Your task to perform on an android device: Clear the cart on newegg.com. Add usb-c to the cart on newegg.com, then select checkout. Image 0: 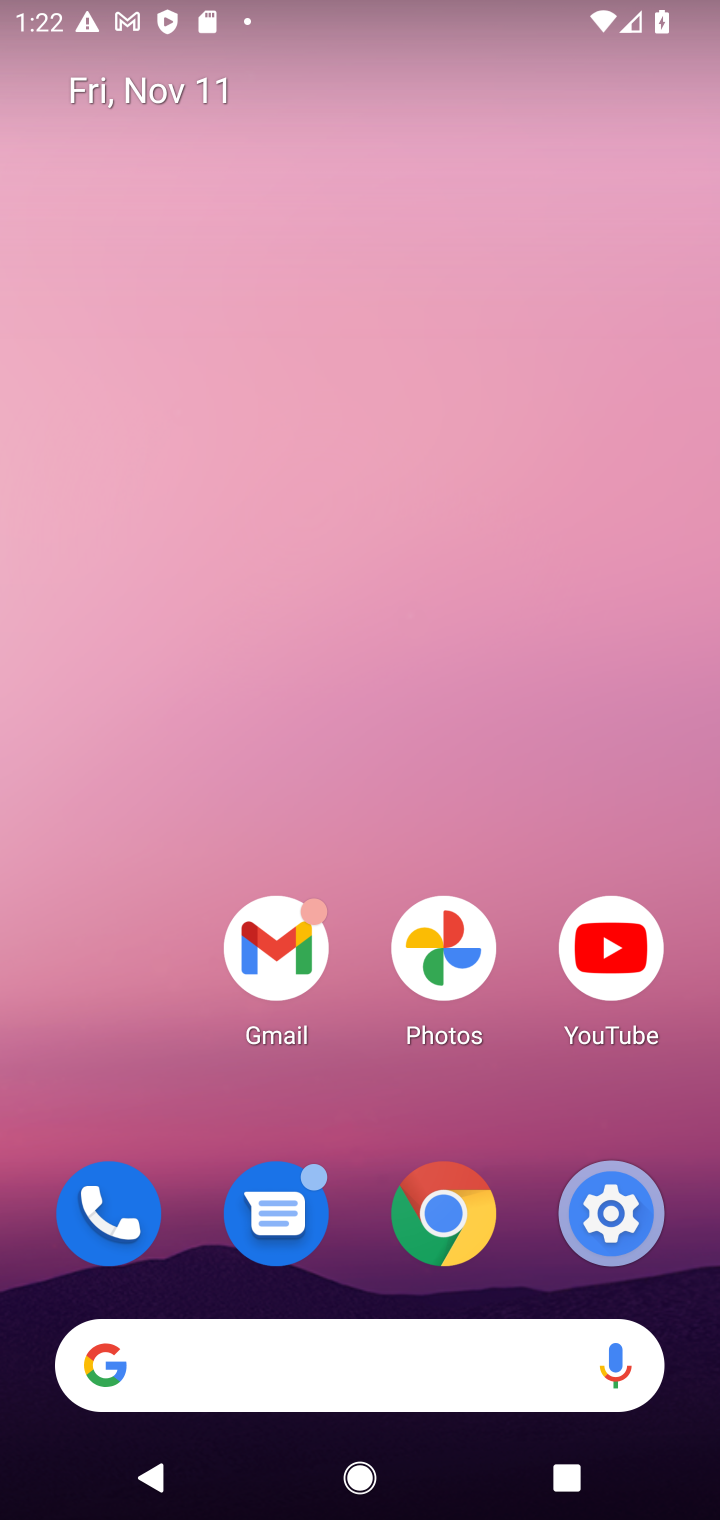
Step 0: click (419, 1221)
Your task to perform on an android device: Clear the cart on newegg.com. Add usb-c to the cart on newegg.com, then select checkout. Image 1: 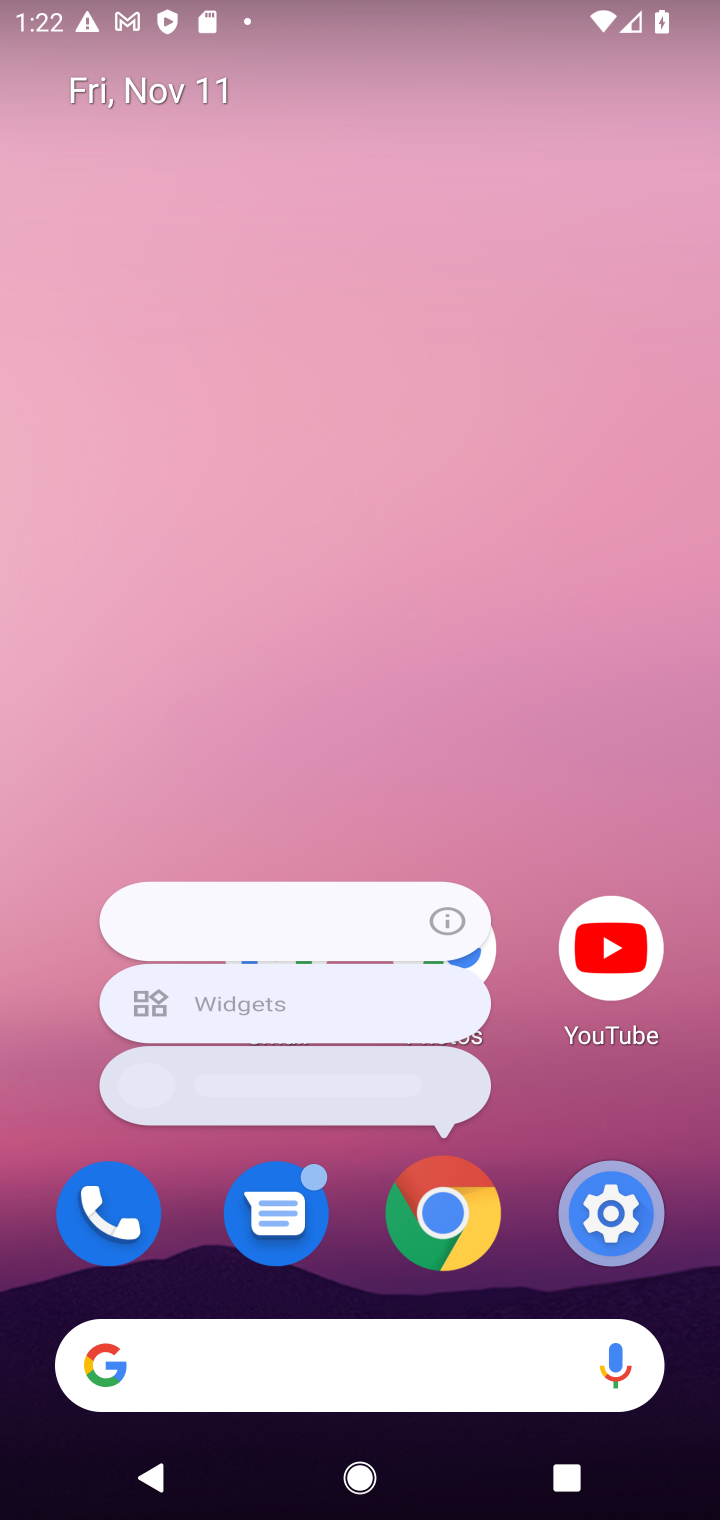
Step 1: click (419, 1217)
Your task to perform on an android device: Clear the cart on newegg.com. Add usb-c to the cart on newegg.com, then select checkout. Image 2: 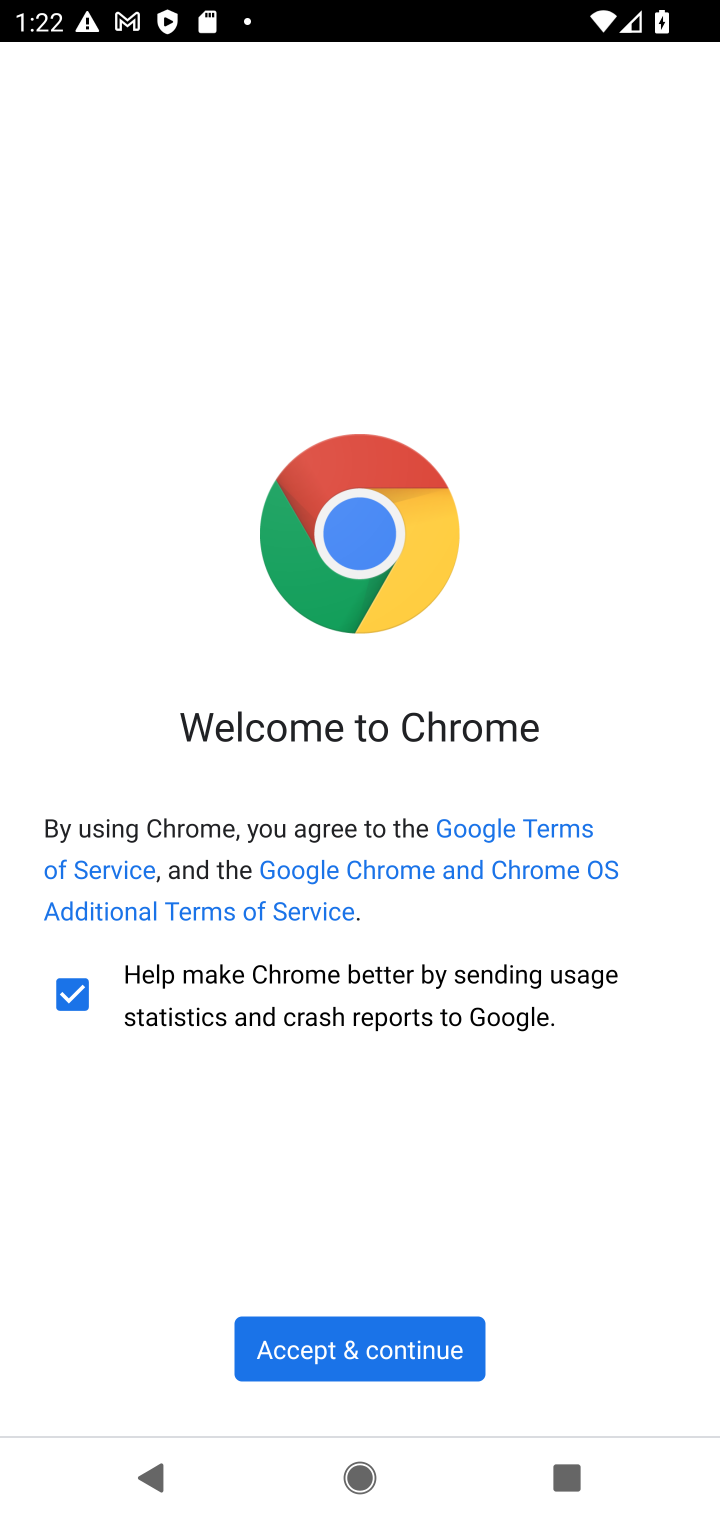
Step 2: click (384, 1335)
Your task to perform on an android device: Clear the cart on newegg.com. Add usb-c to the cart on newegg.com, then select checkout. Image 3: 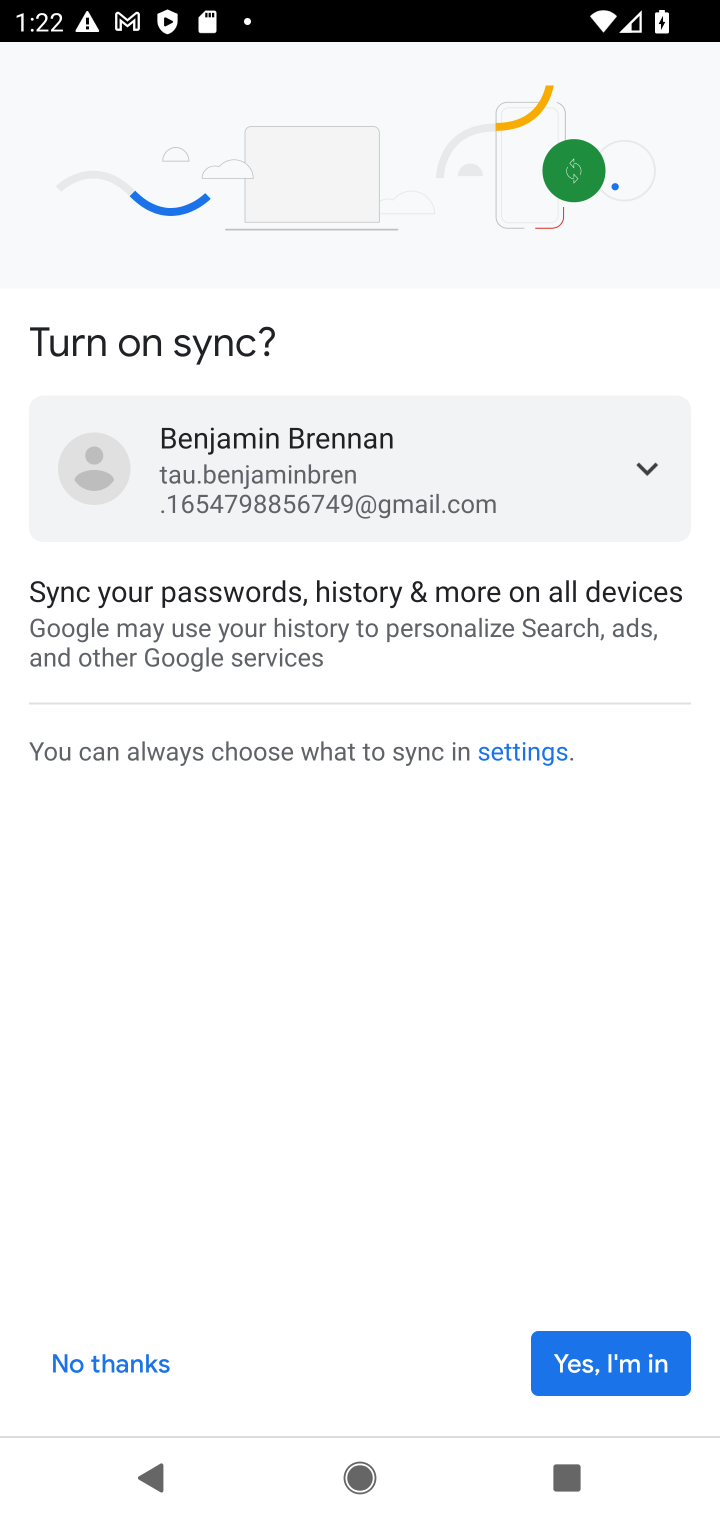
Step 3: click (647, 1377)
Your task to perform on an android device: Clear the cart on newegg.com. Add usb-c to the cart on newegg.com, then select checkout. Image 4: 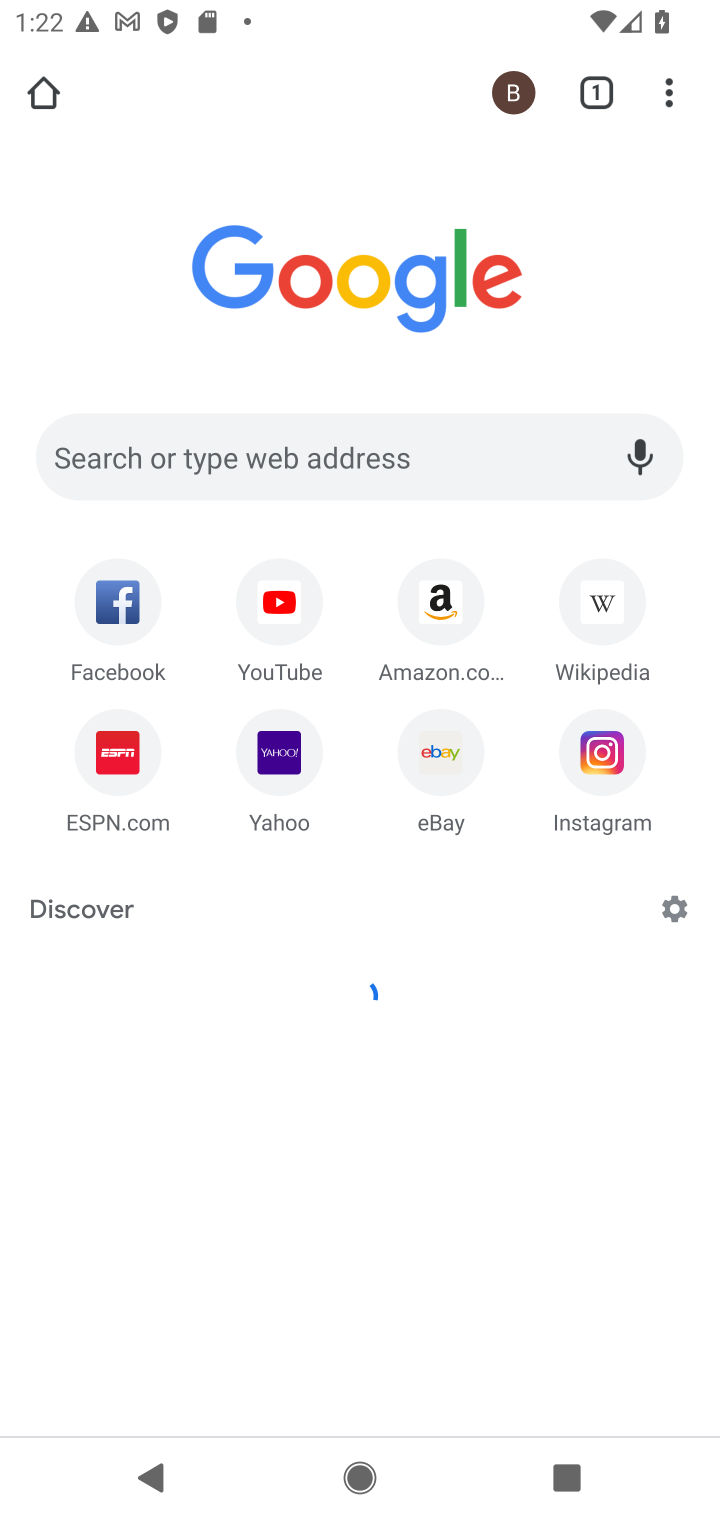
Step 4: click (252, 452)
Your task to perform on an android device: Clear the cart on newegg.com. Add usb-c to the cart on newegg.com, then select checkout. Image 5: 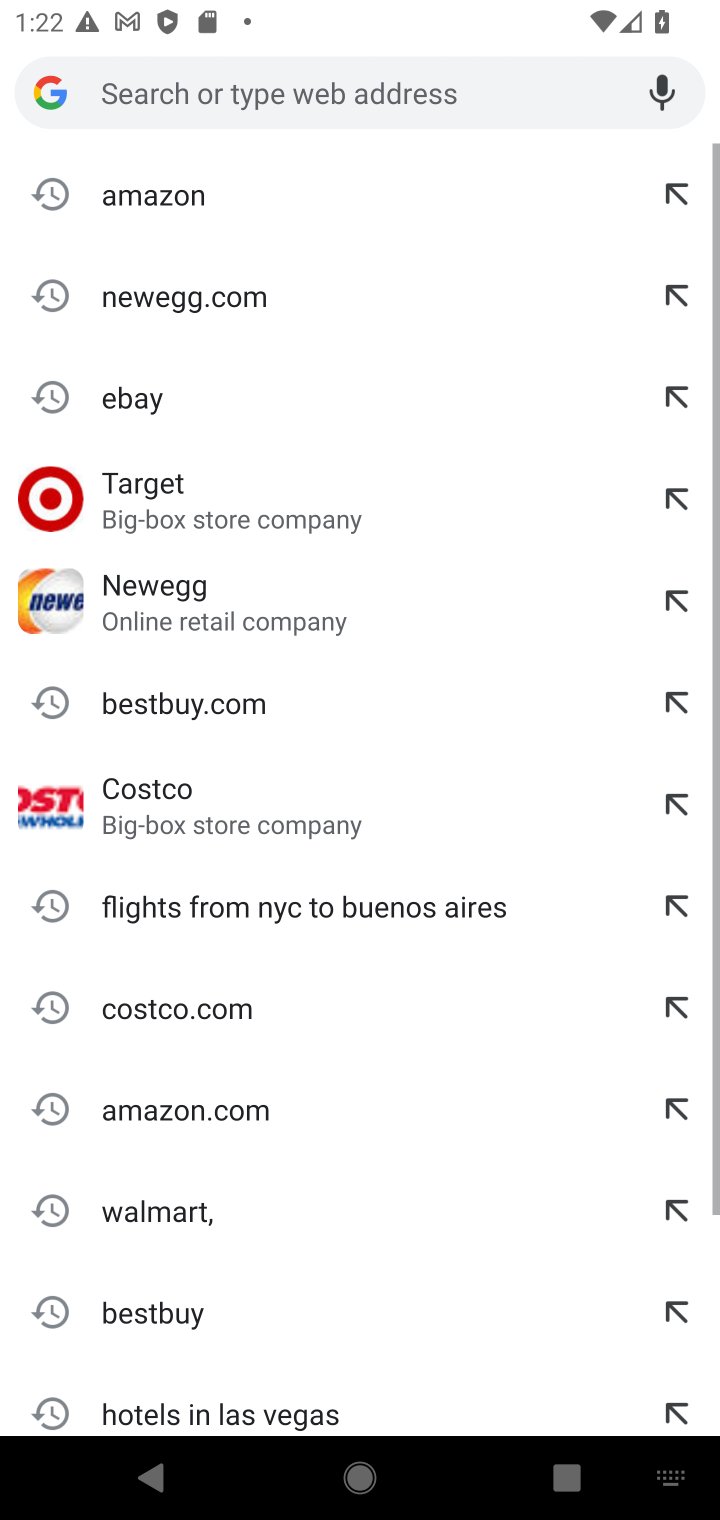
Step 5: click (168, 291)
Your task to perform on an android device: Clear the cart on newegg.com. Add usb-c to the cart on newegg.com, then select checkout. Image 6: 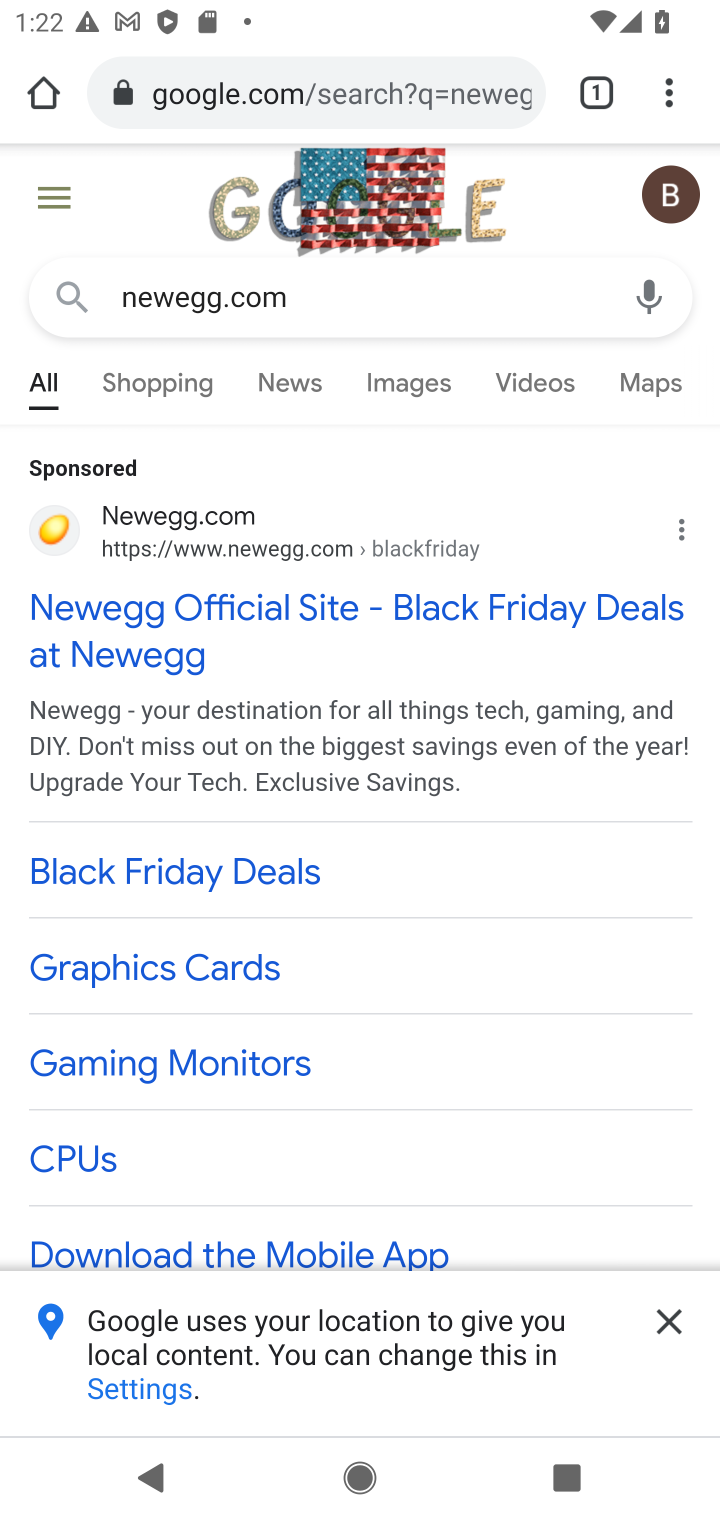
Step 6: drag from (268, 1099) to (343, 294)
Your task to perform on an android device: Clear the cart on newegg.com. Add usb-c to the cart on newegg.com, then select checkout. Image 7: 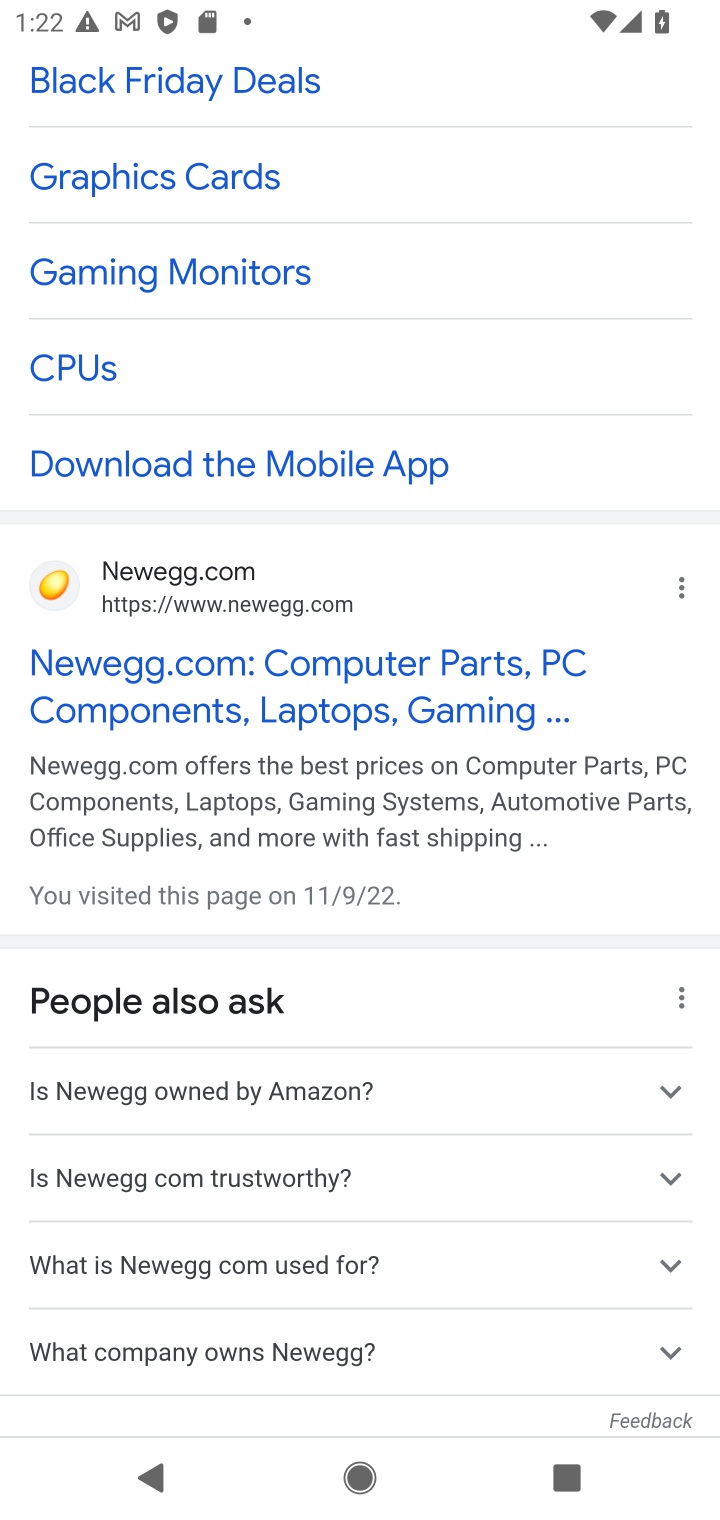
Step 7: drag from (324, 885) to (334, 112)
Your task to perform on an android device: Clear the cart on newegg.com. Add usb-c to the cart on newegg.com, then select checkout. Image 8: 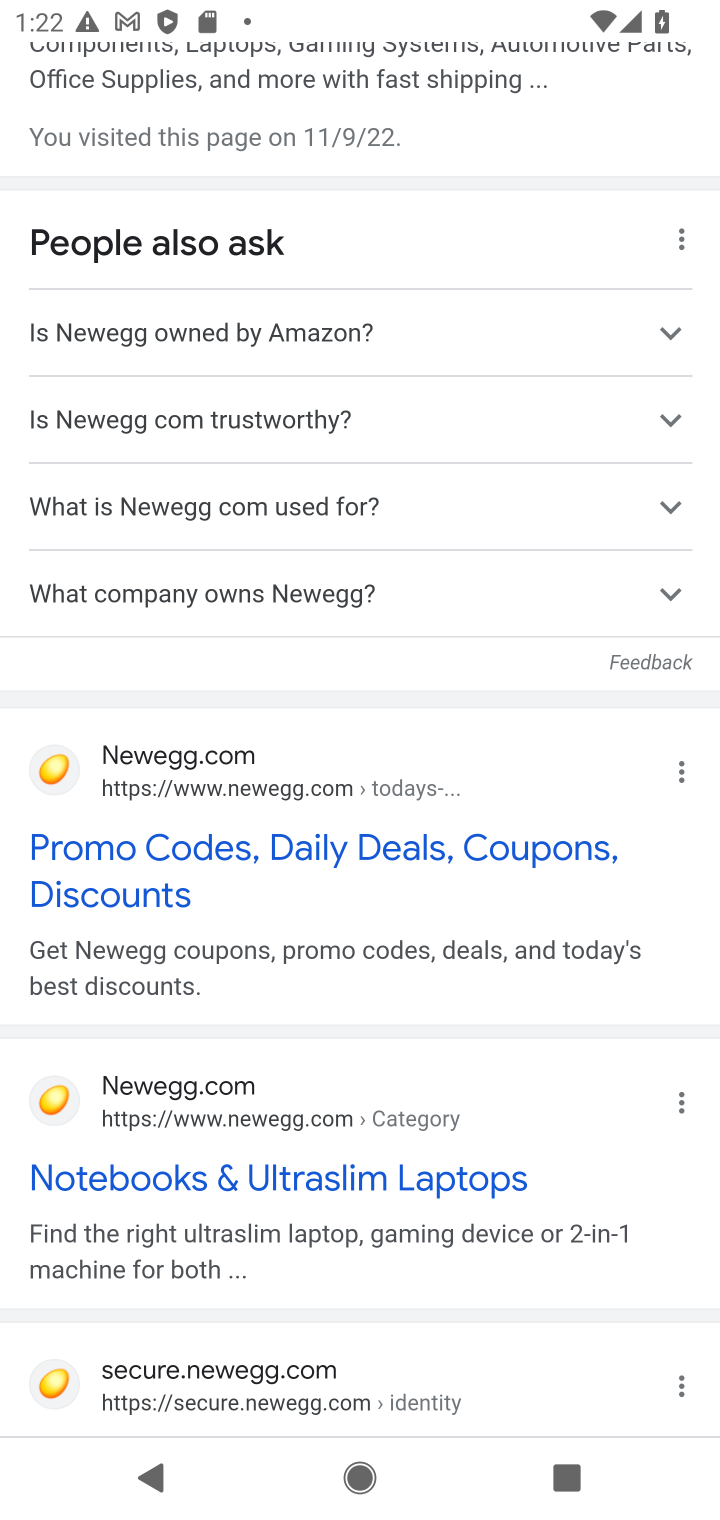
Step 8: drag from (498, 875) to (471, 1227)
Your task to perform on an android device: Clear the cart on newegg.com. Add usb-c to the cart on newegg.com, then select checkout. Image 9: 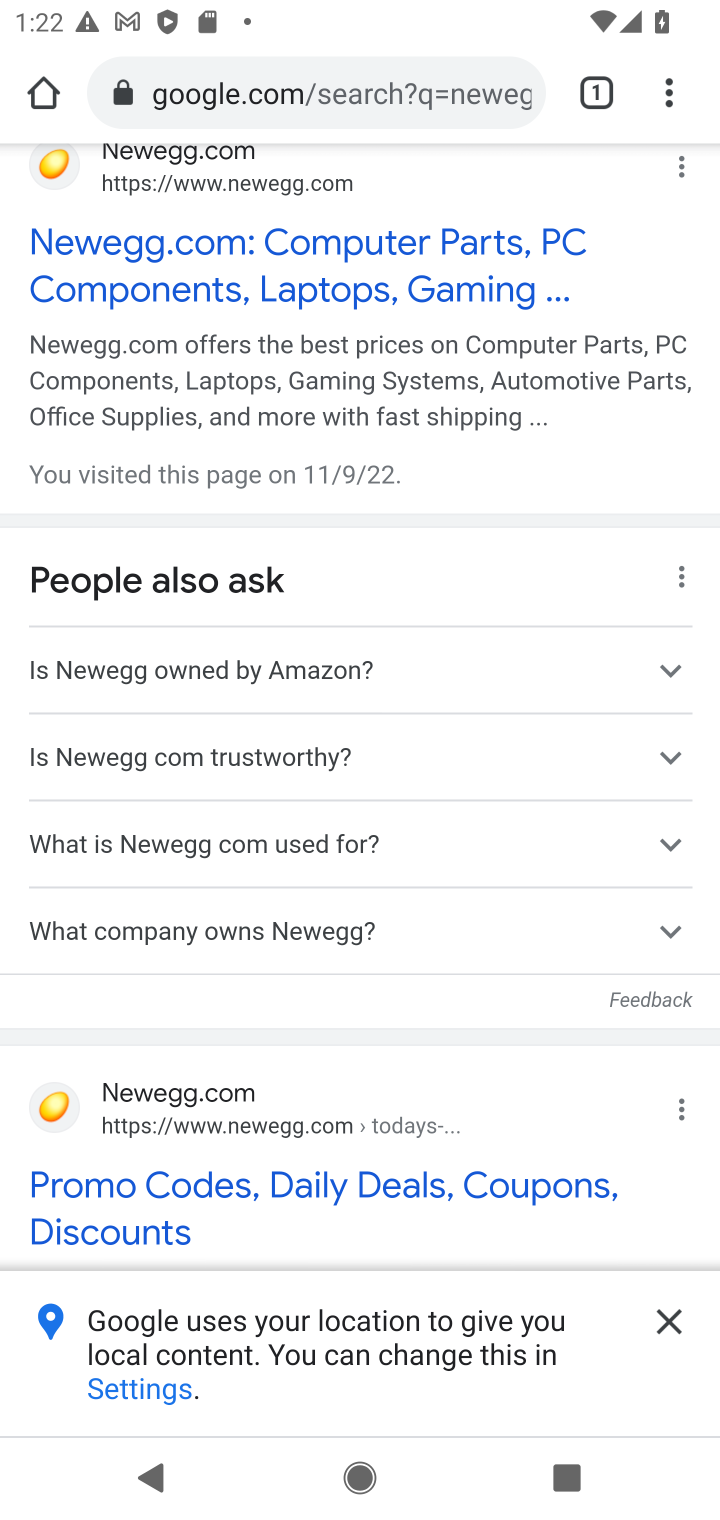
Step 9: drag from (452, 551) to (449, 1096)
Your task to perform on an android device: Clear the cart on newegg.com. Add usb-c to the cart on newegg.com, then select checkout. Image 10: 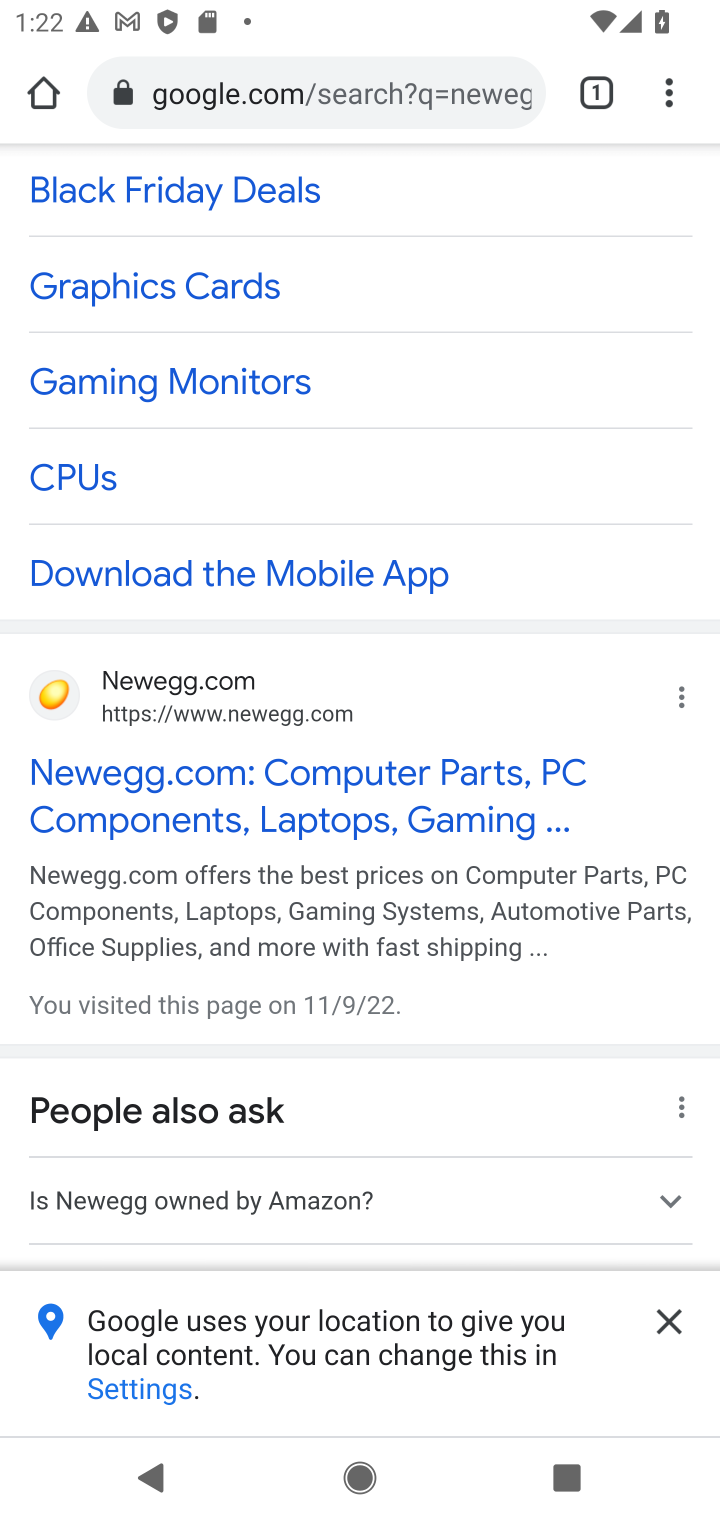
Step 10: click (201, 772)
Your task to perform on an android device: Clear the cart on newegg.com. Add usb-c to the cart on newegg.com, then select checkout. Image 11: 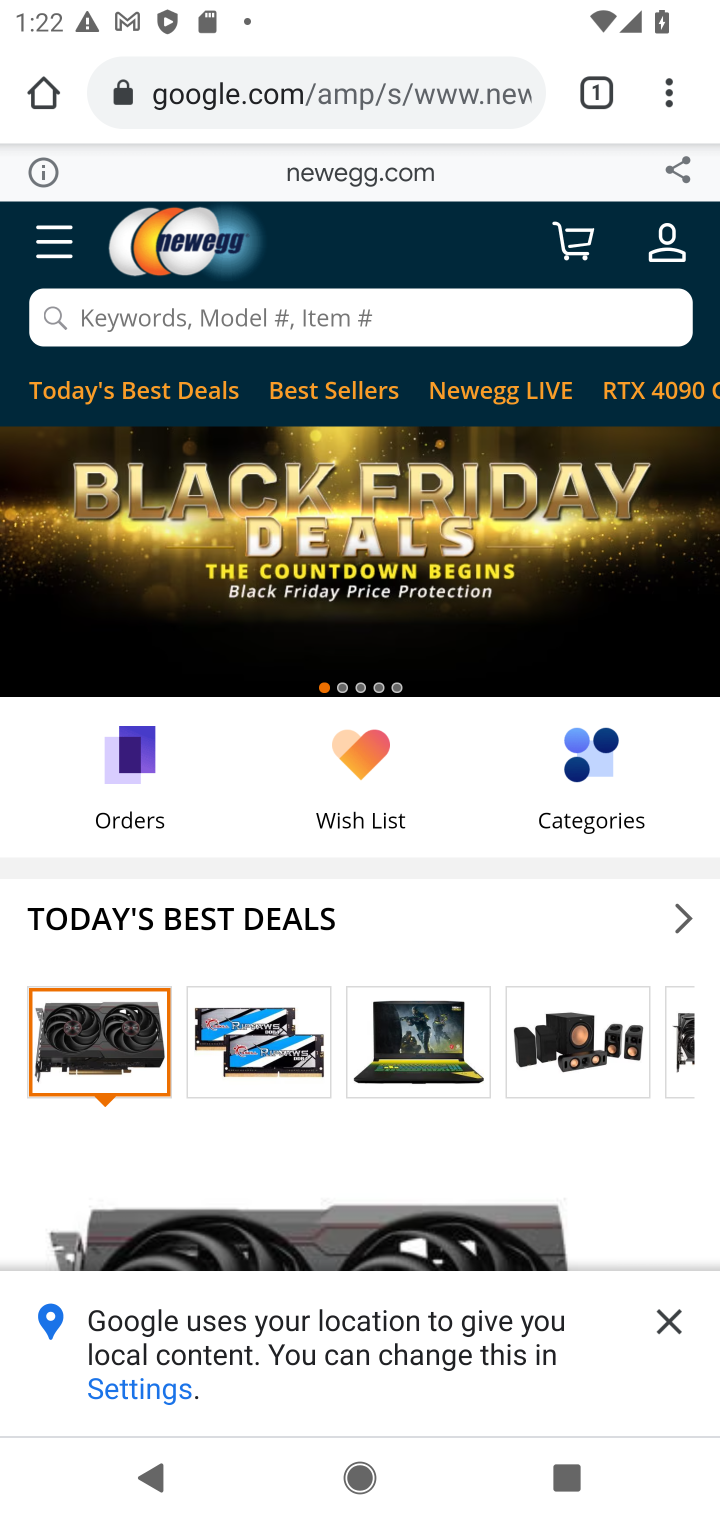
Step 11: click (318, 312)
Your task to perform on an android device: Clear the cart on newegg.com. Add usb-c to the cart on newegg.com, then select checkout. Image 12: 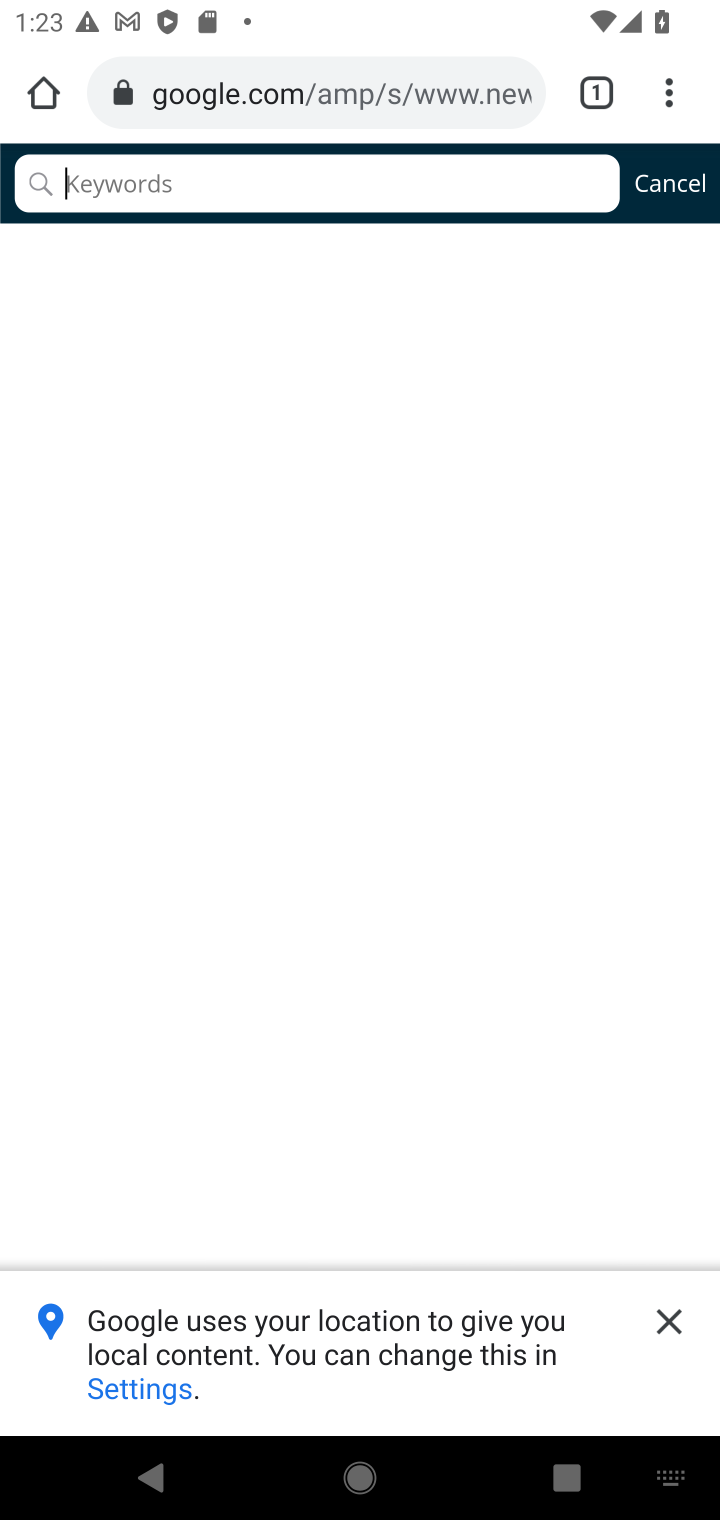
Step 12: type "usb-c"
Your task to perform on an android device: Clear the cart on newegg.com. Add usb-c to the cart on newegg.com, then select checkout. Image 13: 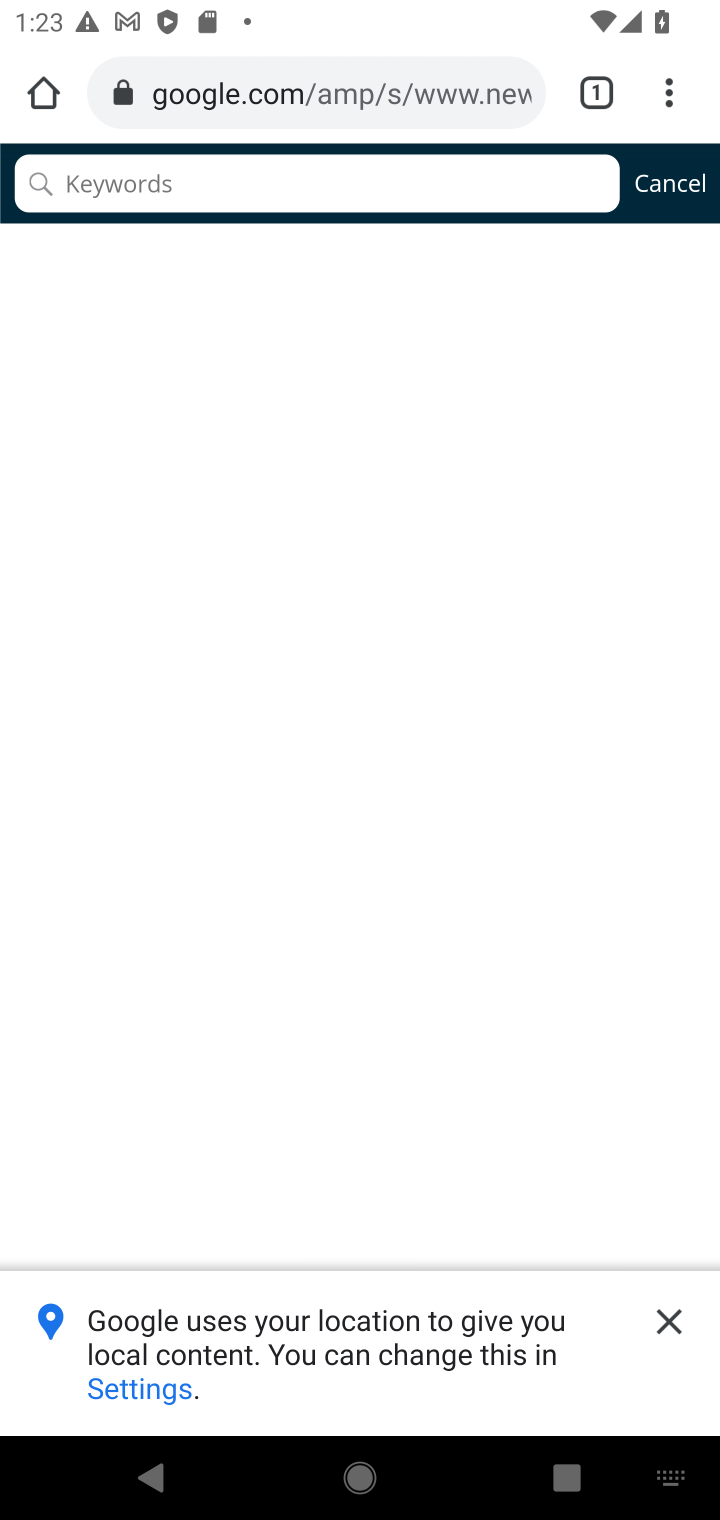
Step 13: press enter
Your task to perform on an android device: Clear the cart on newegg.com. Add usb-c to the cart on newegg.com, then select checkout. Image 14: 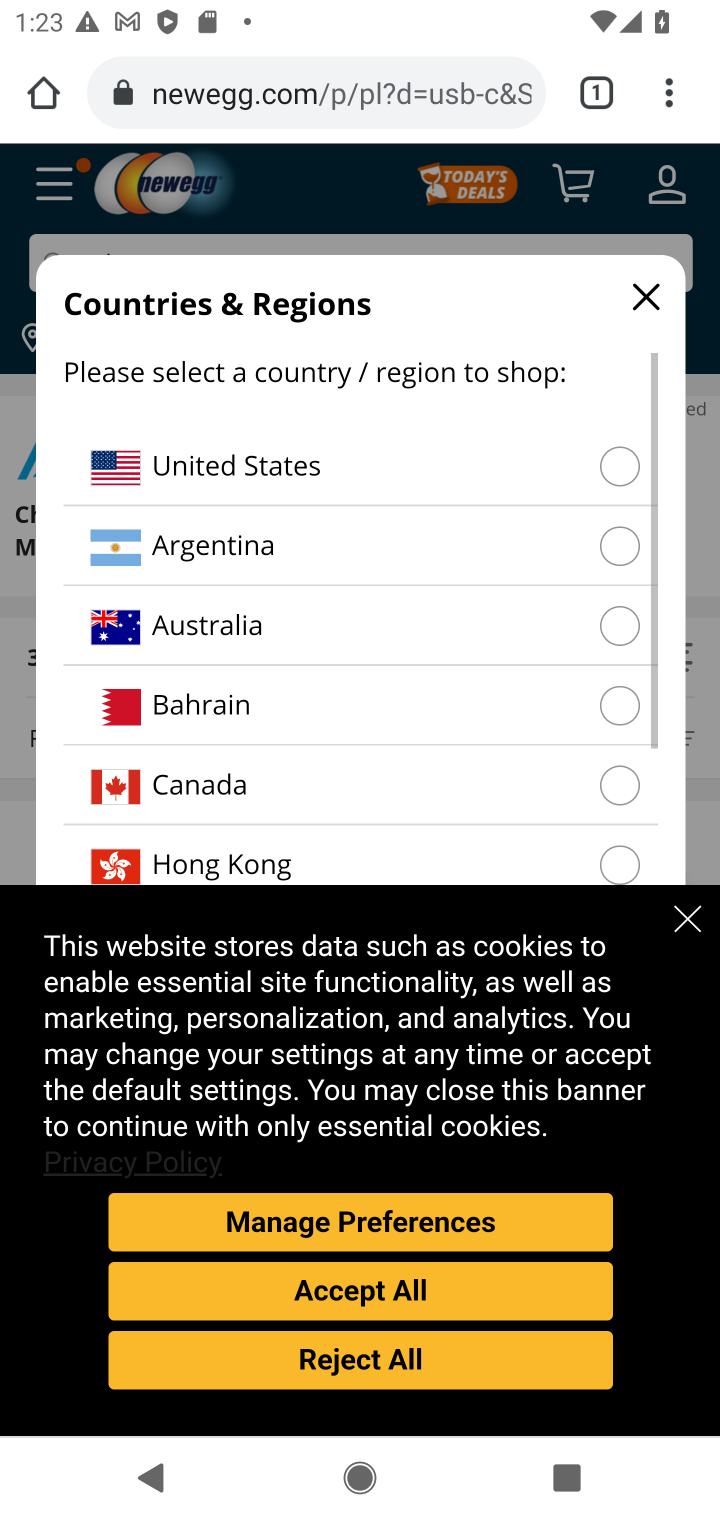
Step 14: click (700, 923)
Your task to perform on an android device: Clear the cart on newegg.com. Add usb-c to the cart on newegg.com, then select checkout. Image 15: 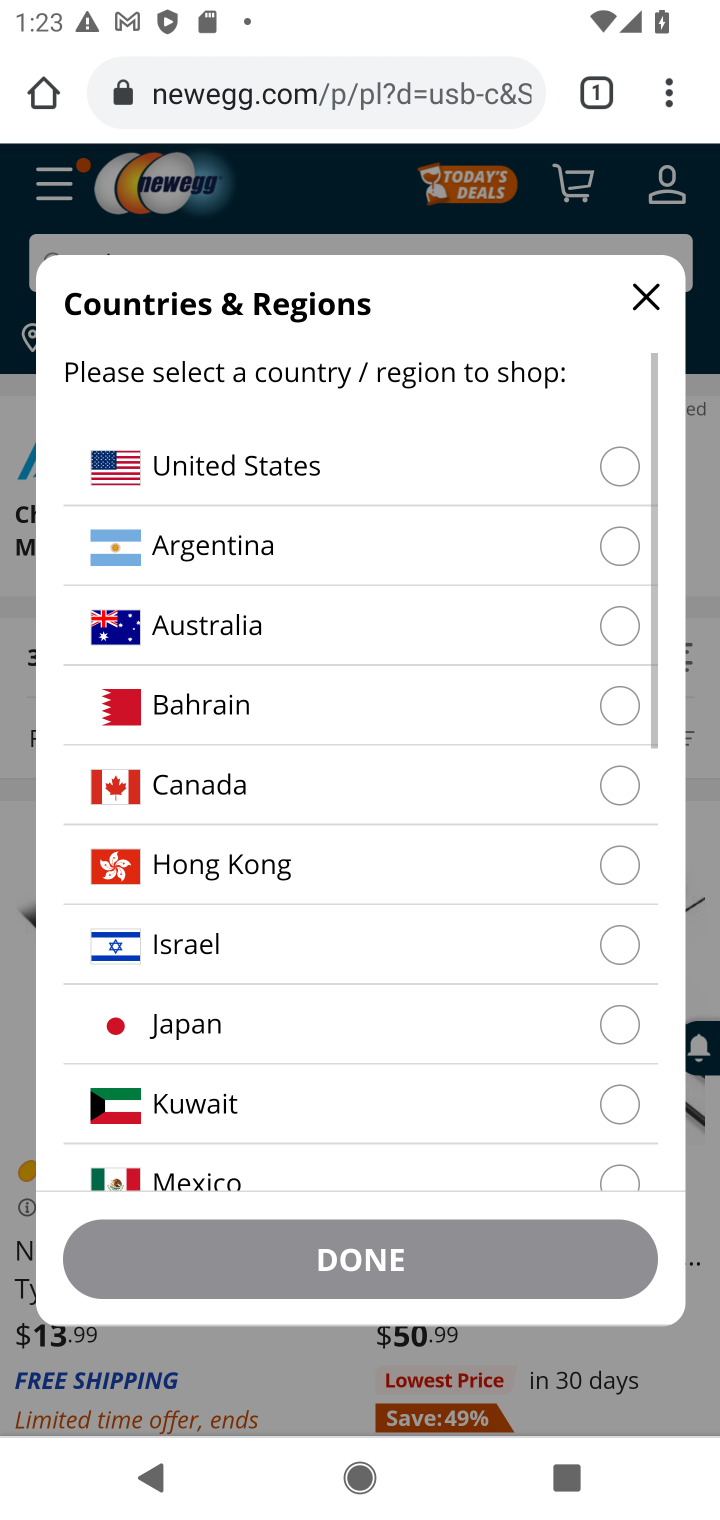
Step 15: click (645, 298)
Your task to perform on an android device: Clear the cart on newegg.com. Add usb-c to the cart on newegg.com, then select checkout. Image 16: 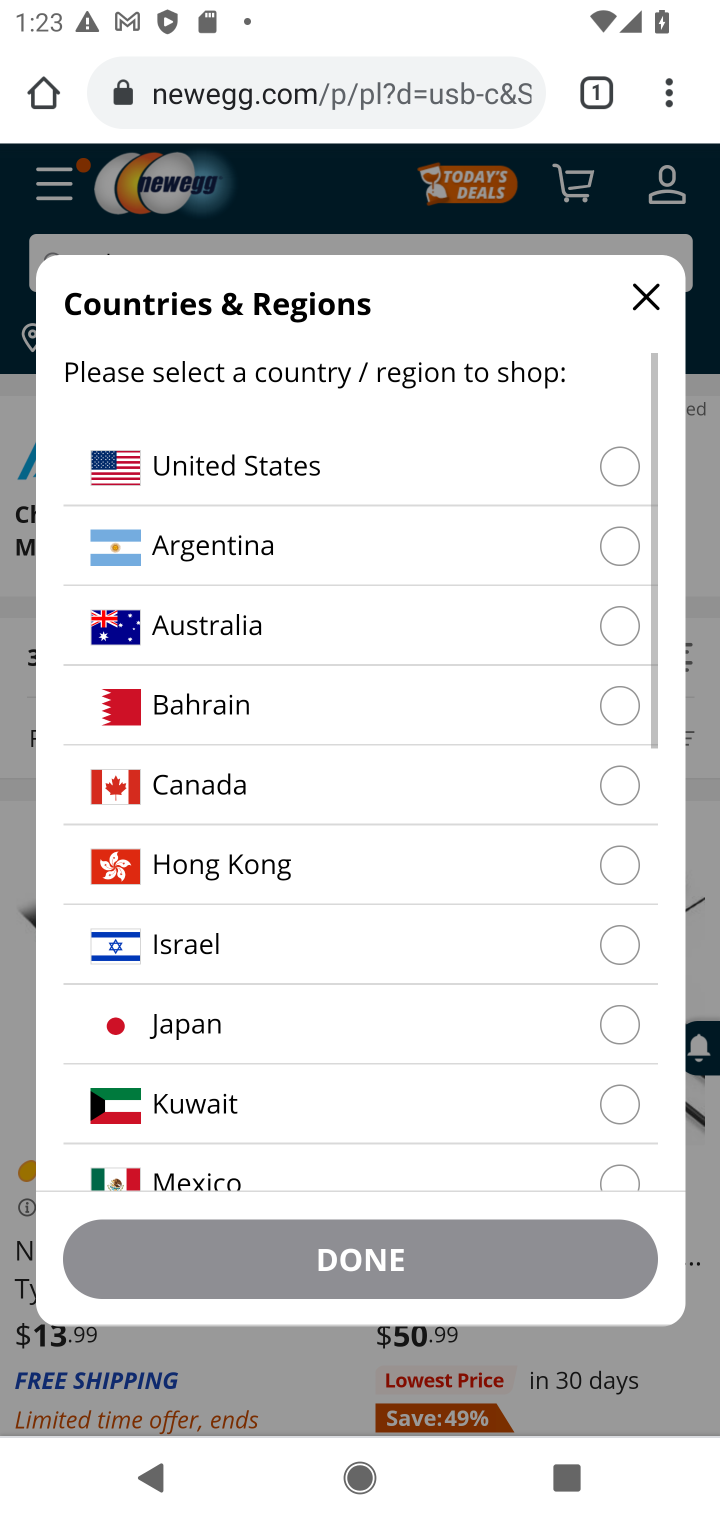
Step 16: click (641, 290)
Your task to perform on an android device: Clear the cart on newegg.com. Add usb-c to the cart on newegg.com, then select checkout. Image 17: 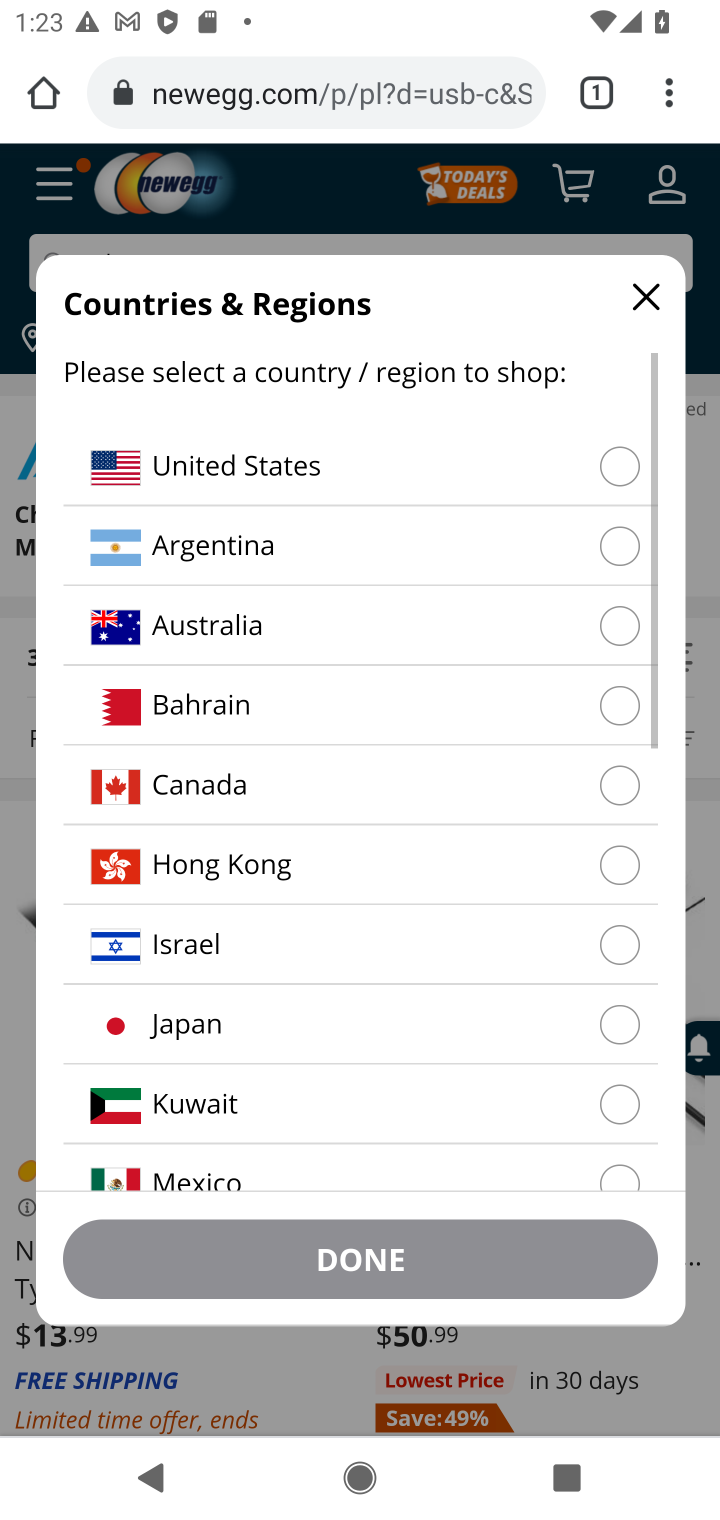
Step 17: click (645, 295)
Your task to perform on an android device: Clear the cart on newegg.com. Add usb-c to the cart on newegg.com, then select checkout. Image 18: 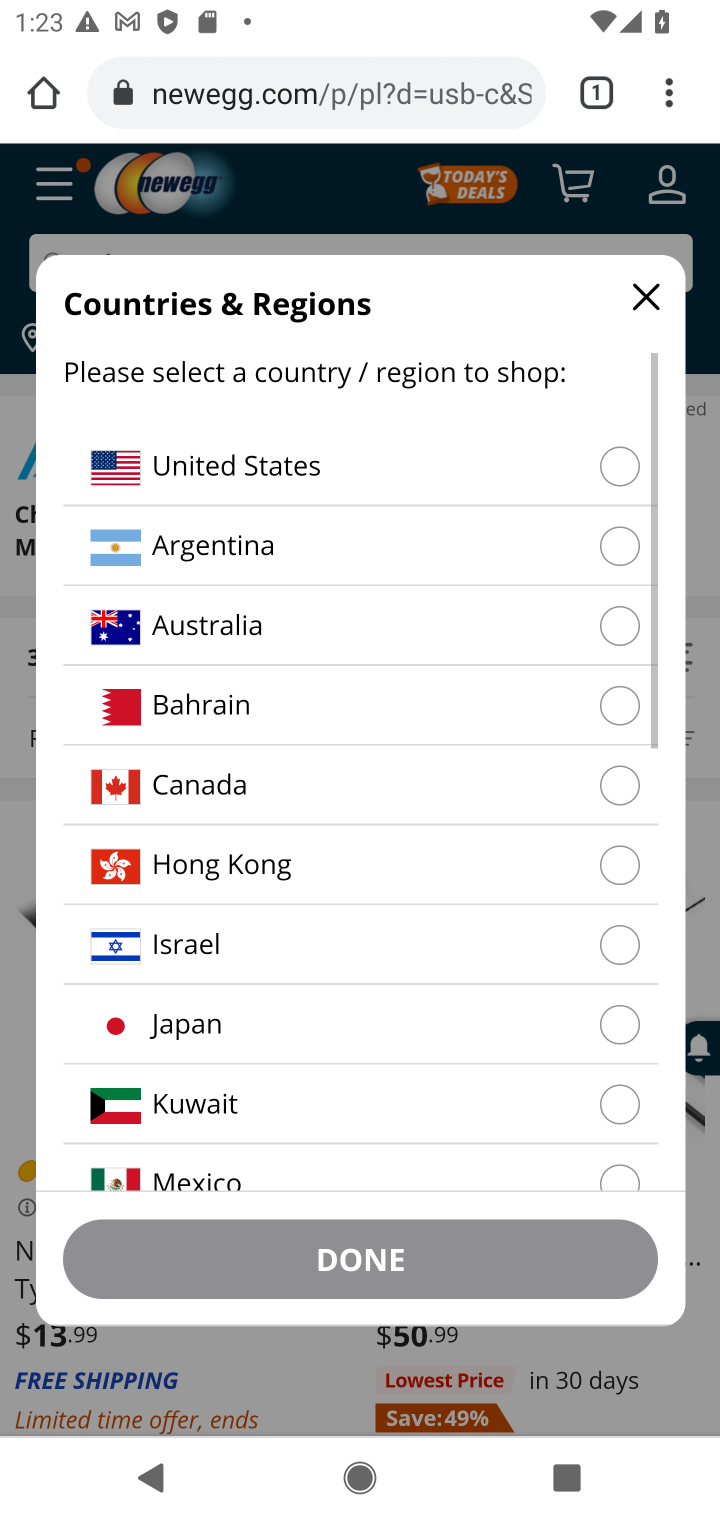
Step 18: click (637, 285)
Your task to perform on an android device: Clear the cart on newegg.com. Add usb-c to the cart on newegg.com, then select checkout. Image 19: 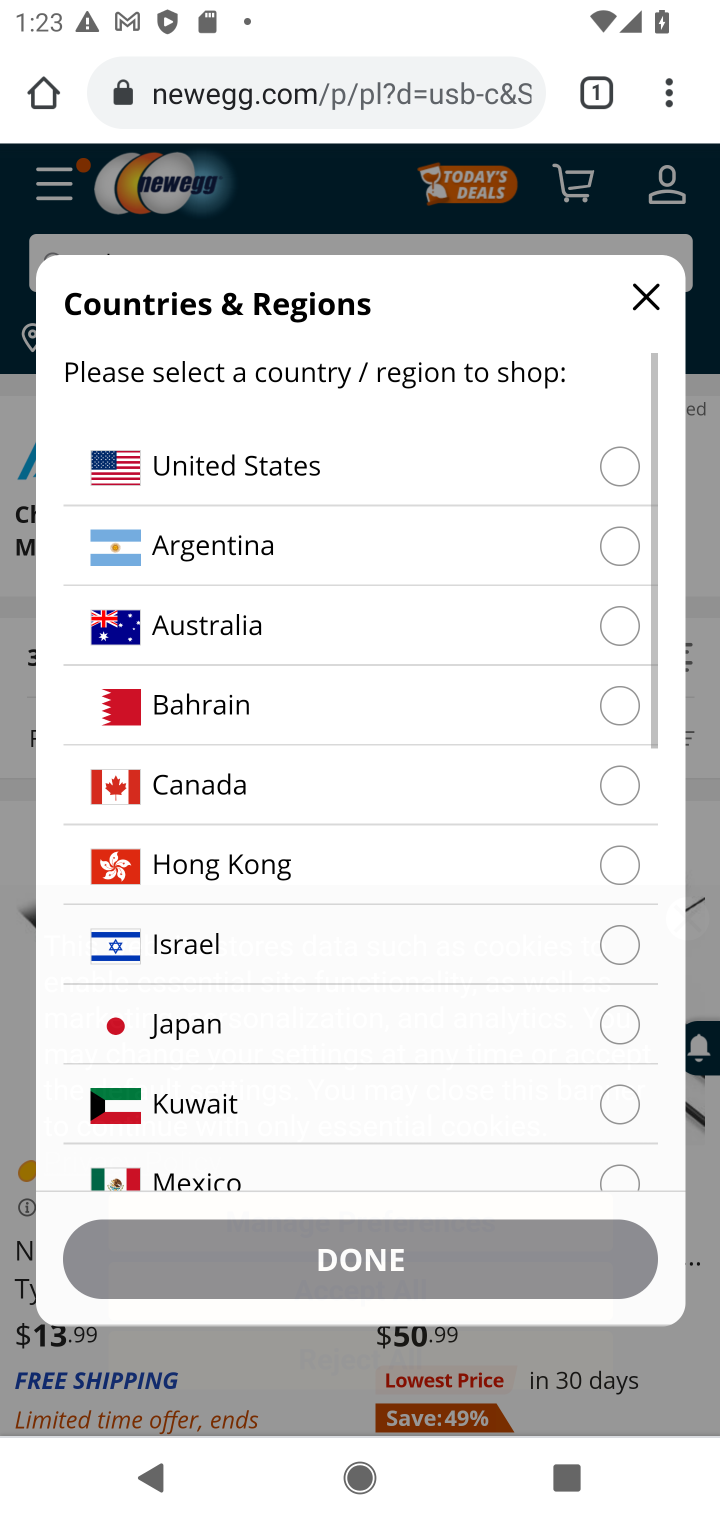
Step 19: click (388, 1246)
Your task to perform on an android device: Clear the cart on newegg.com. Add usb-c to the cart on newegg.com, then select checkout. Image 20: 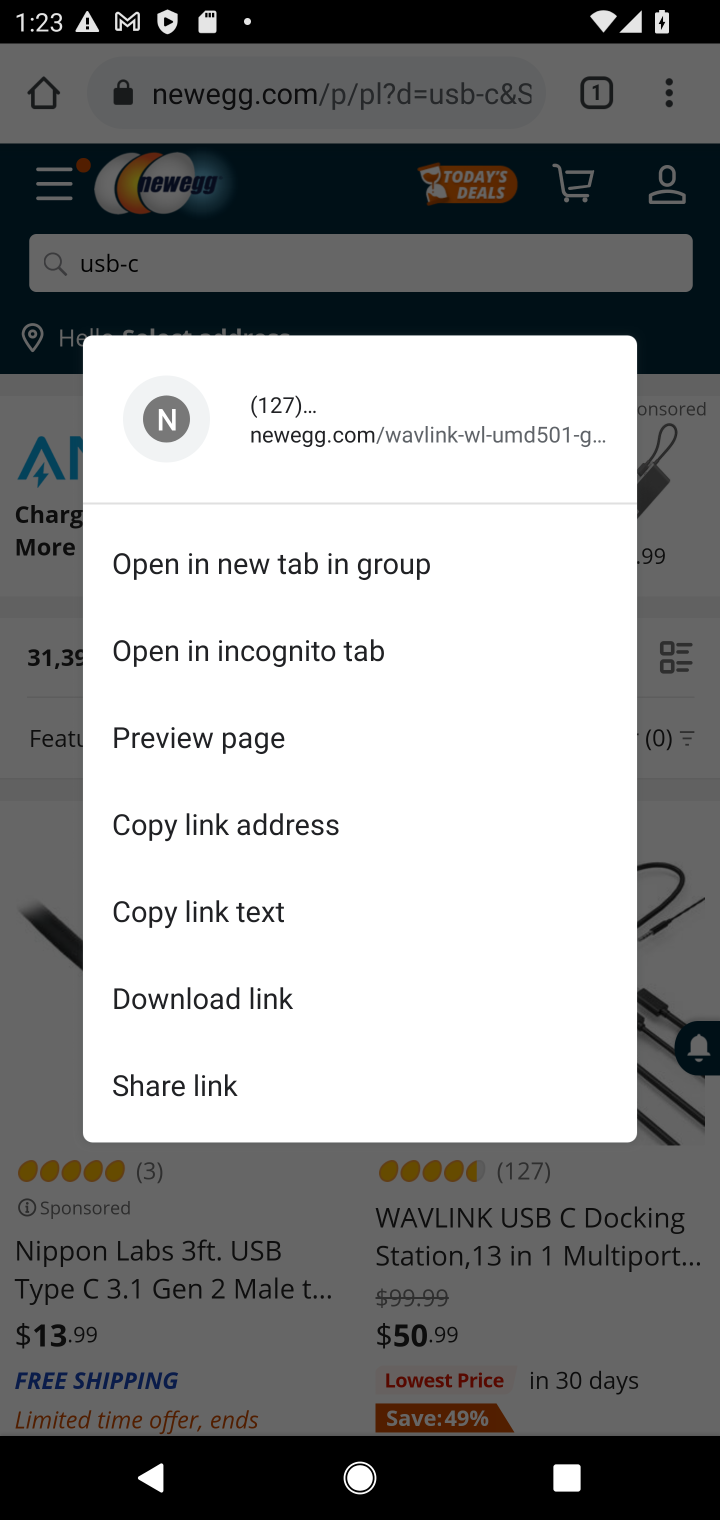
Step 20: task complete